Your task to perform on an android device: find photos in the google photos app Image 0: 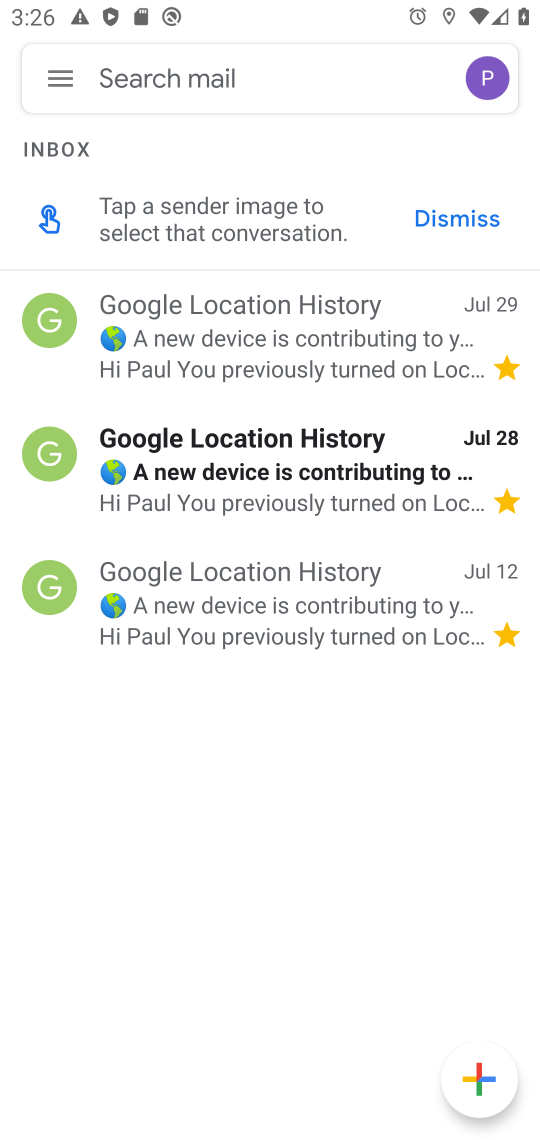
Step 0: press home button
Your task to perform on an android device: find photos in the google photos app Image 1: 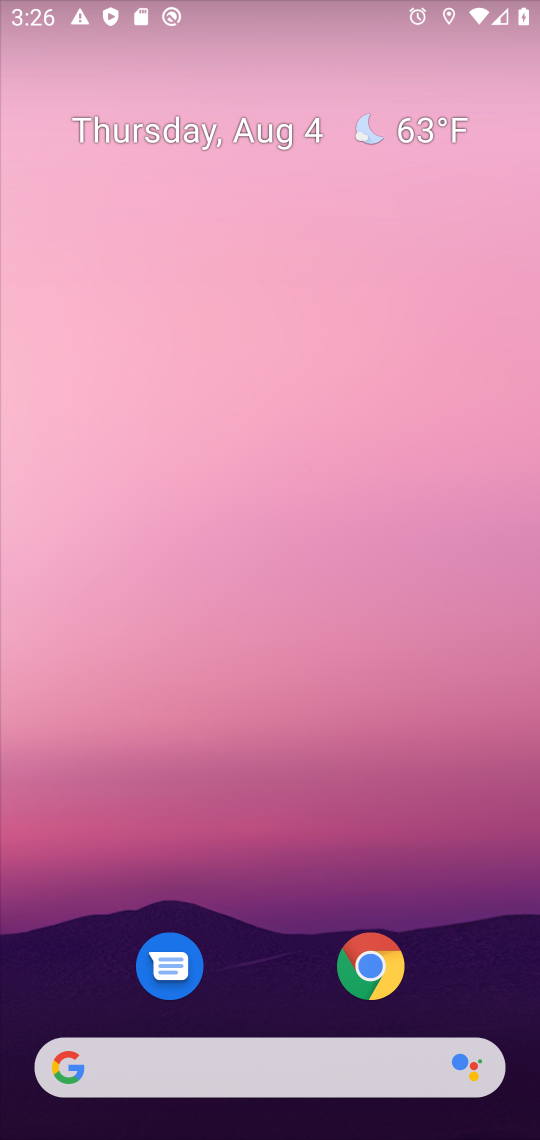
Step 1: drag from (241, 968) to (150, 174)
Your task to perform on an android device: find photos in the google photos app Image 2: 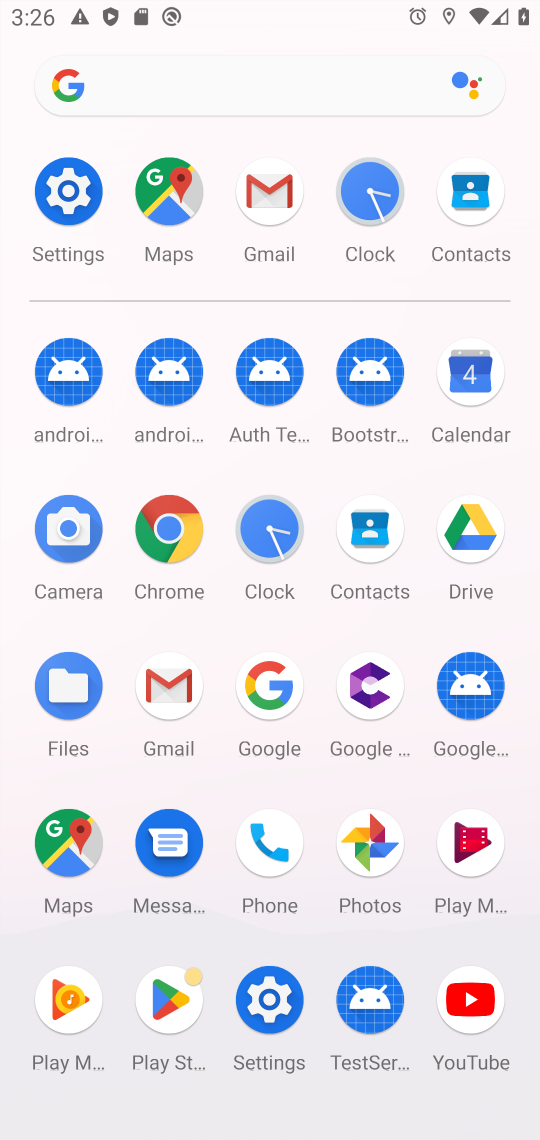
Step 2: click (377, 844)
Your task to perform on an android device: find photos in the google photos app Image 3: 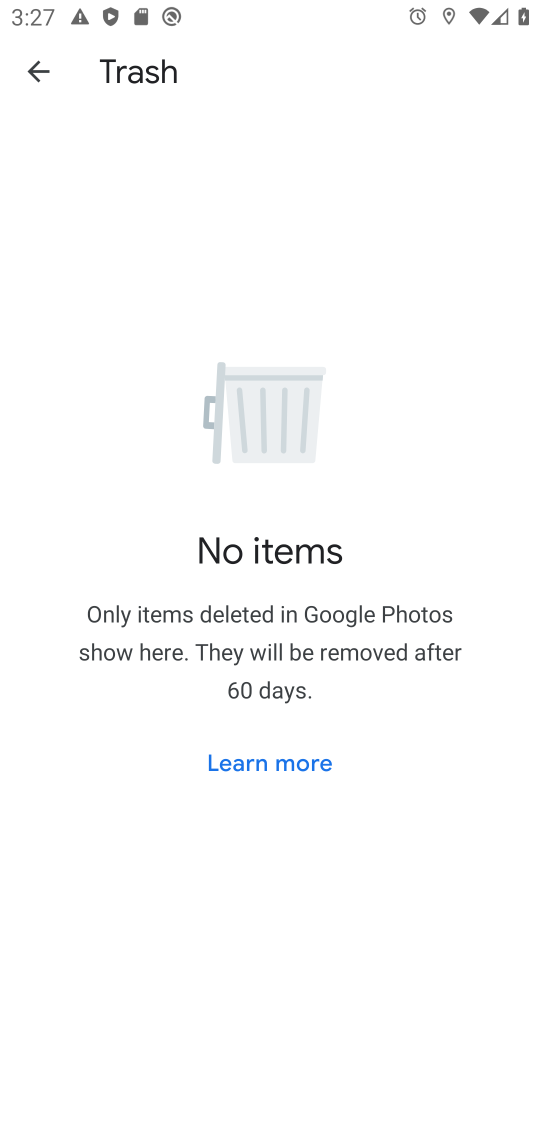
Step 3: click (50, 72)
Your task to perform on an android device: find photos in the google photos app Image 4: 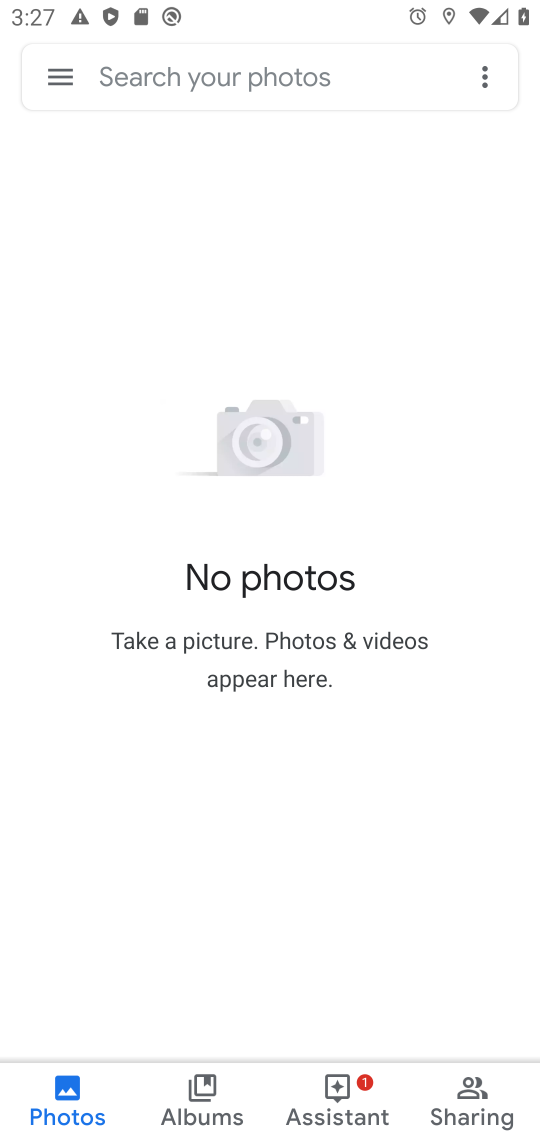
Step 4: task complete